Your task to perform on an android device: Go to Maps Image 0: 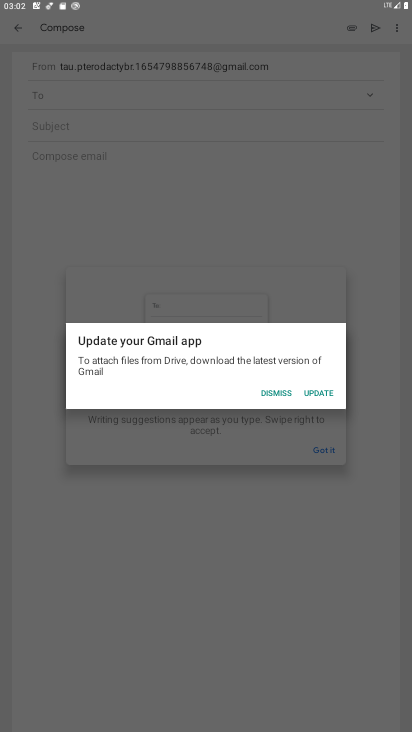
Step 0: press home button
Your task to perform on an android device: Go to Maps Image 1: 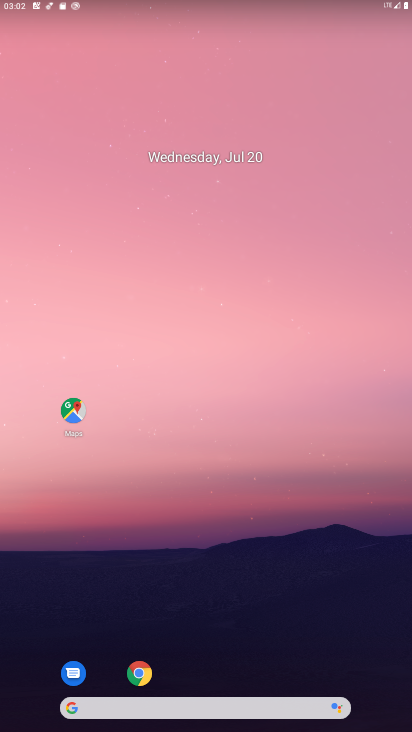
Step 1: click (73, 415)
Your task to perform on an android device: Go to Maps Image 2: 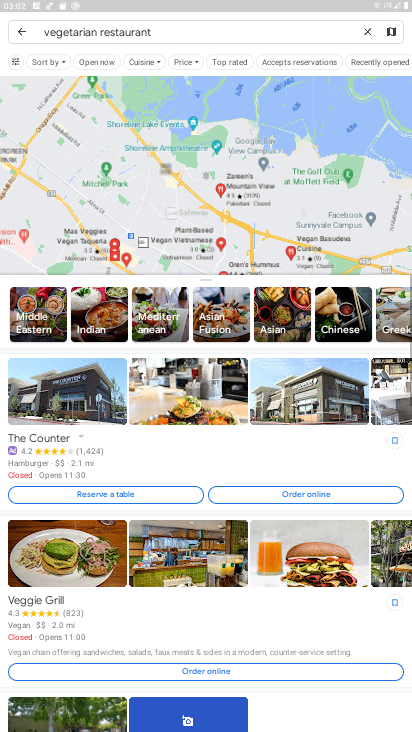
Step 2: click (21, 31)
Your task to perform on an android device: Go to Maps Image 3: 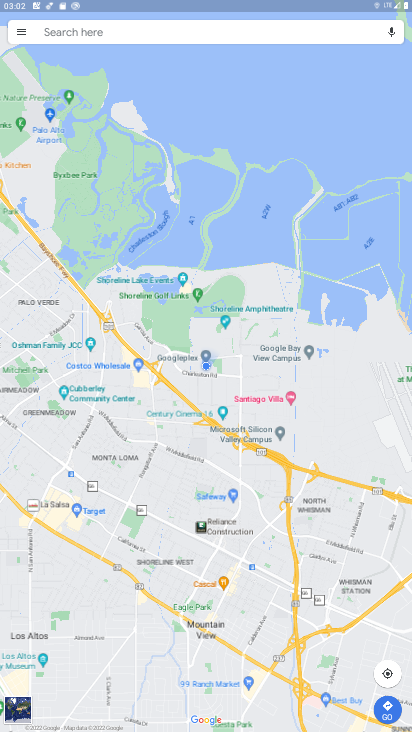
Step 3: task complete